Your task to perform on an android device: Show me popular videos on Youtube Image 0: 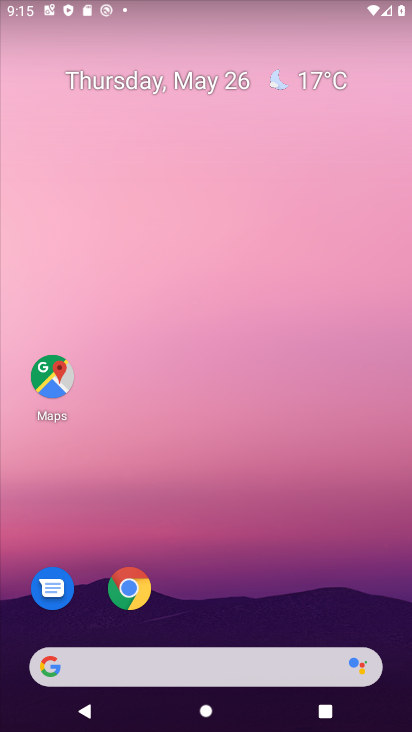
Step 0: drag from (370, 600) to (314, 49)
Your task to perform on an android device: Show me popular videos on Youtube Image 1: 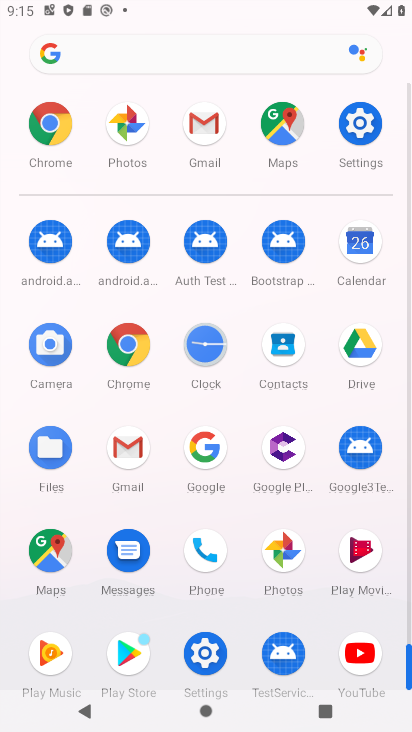
Step 1: click (359, 657)
Your task to perform on an android device: Show me popular videos on Youtube Image 2: 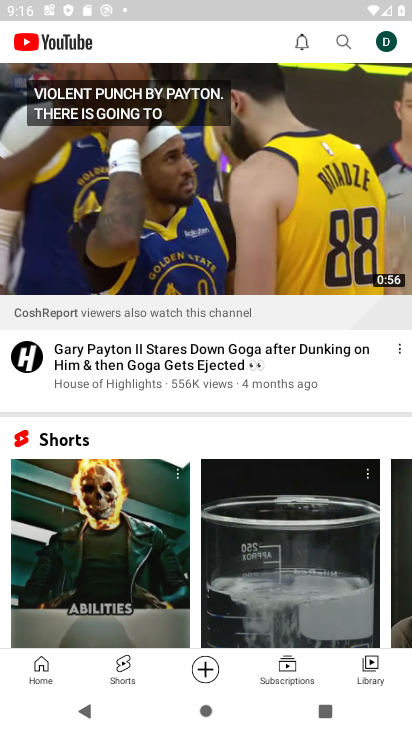
Step 2: click (49, 672)
Your task to perform on an android device: Show me popular videos on Youtube Image 3: 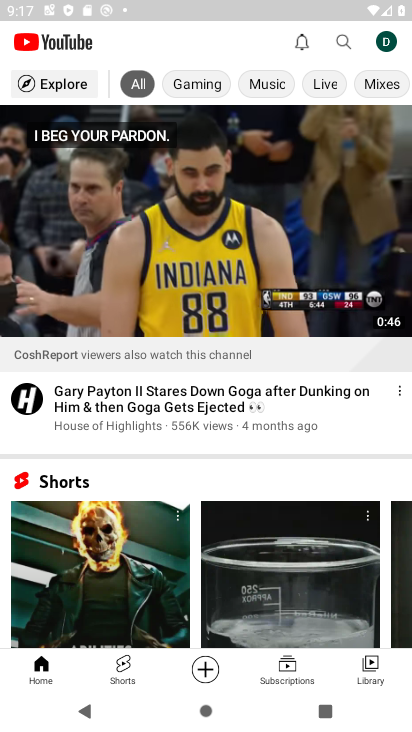
Step 3: task complete